Your task to perform on an android device: Open location settings Image 0: 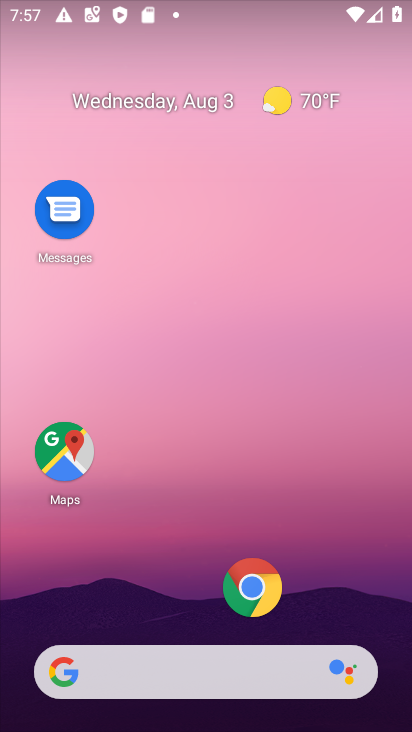
Step 0: drag from (160, 579) to (132, 178)
Your task to perform on an android device: Open location settings Image 1: 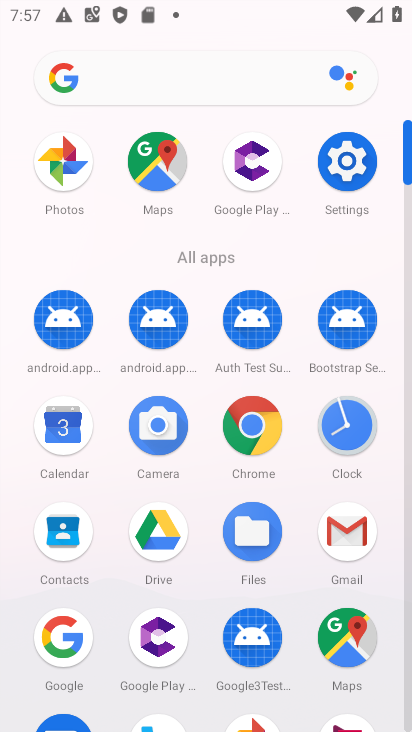
Step 1: click (347, 176)
Your task to perform on an android device: Open location settings Image 2: 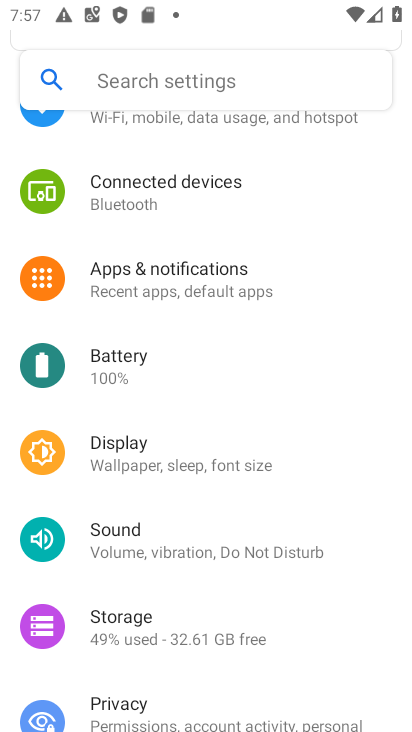
Step 2: drag from (238, 642) to (233, 401)
Your task to perform on an android device: Open location settings Image 3: 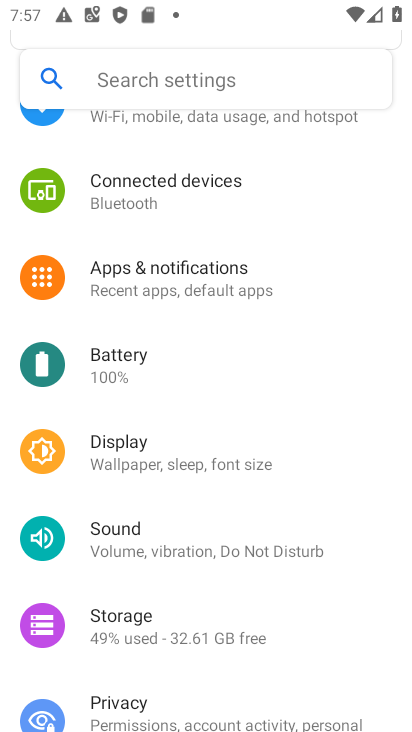
Step 3: drag from (182, 538) to (184, 311)
Your task to perform on an android device: Open location settings Image 4: 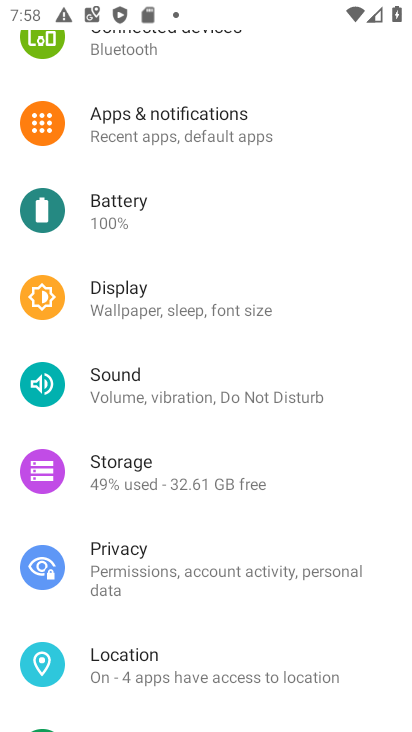
Step 4: click (185, 665)
Your task to perform on an android device: Open location settings Image 5: 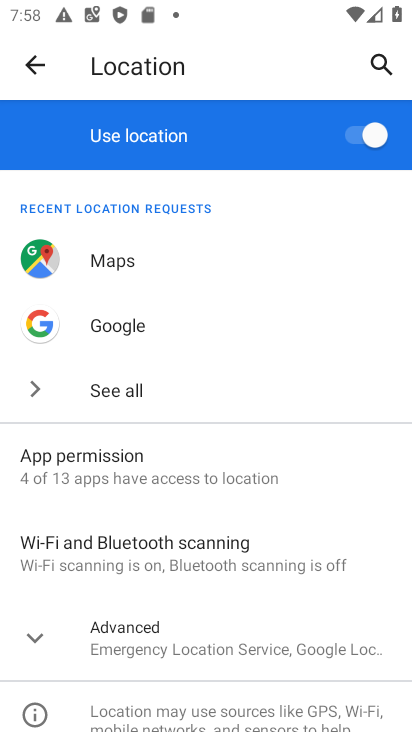
Step 5: task complete